Your task to perform on an android device: Open the calendar app, open the side menu, and click the "Day" option Image 0: 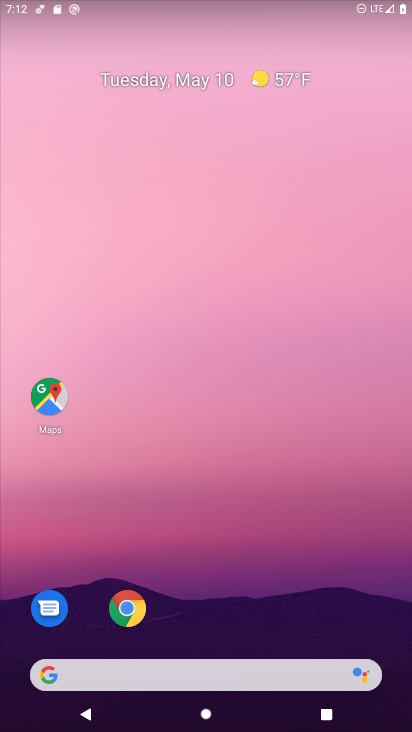
Step 0: drag from (369, 615) to (282, 17)
Your task to perform on an android device: Open the calendar app, open the side menu, and click the "Day" option Image 1: 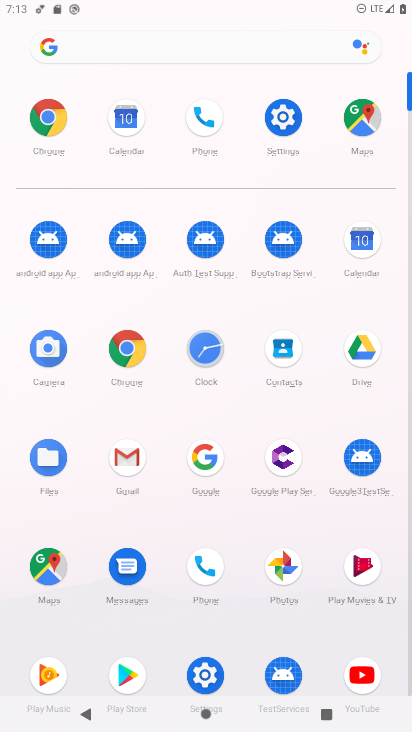
Step 1: click (366, 235)
Your task to perform on an android device: Open the calendar app, open the side menu, and click the "Day" option Image 2: 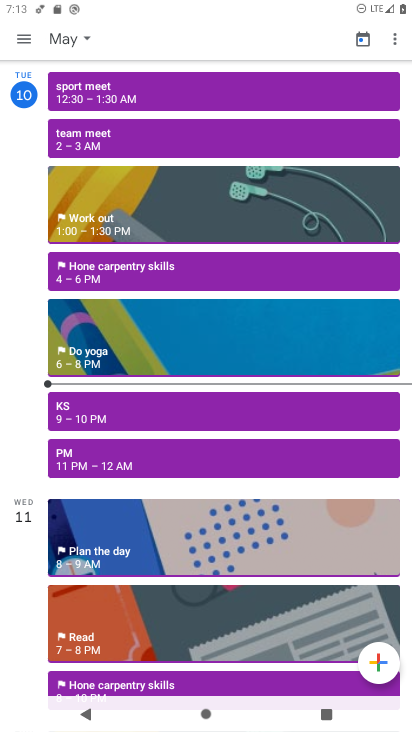
Step 2: click (19, 36)
Your task to perform on an android device: Open the calendar app, open the side menu, and click the "Day" option Image 3: 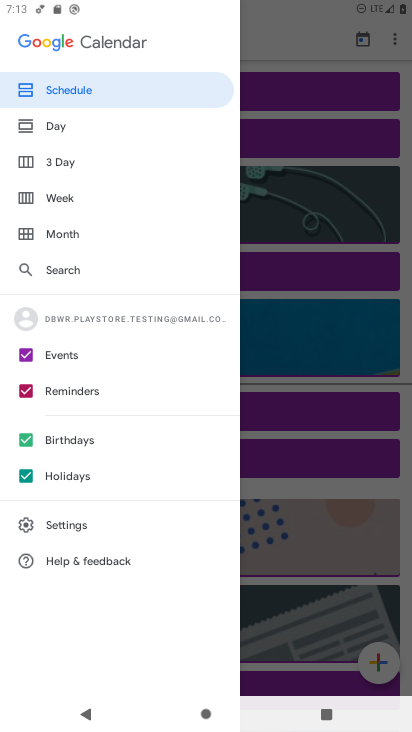
Step 3: click (96, 121)
Your task to perform on an android device: Open the calendar app, open the side menu, and click the "Day" option Image 4: 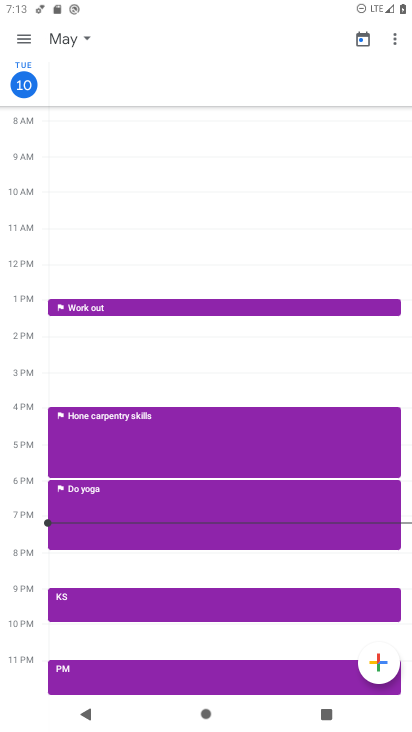
Step 4: task complete